Your task to perform on an android device: Open Google Chrome and open the bookmarks view Image 0: 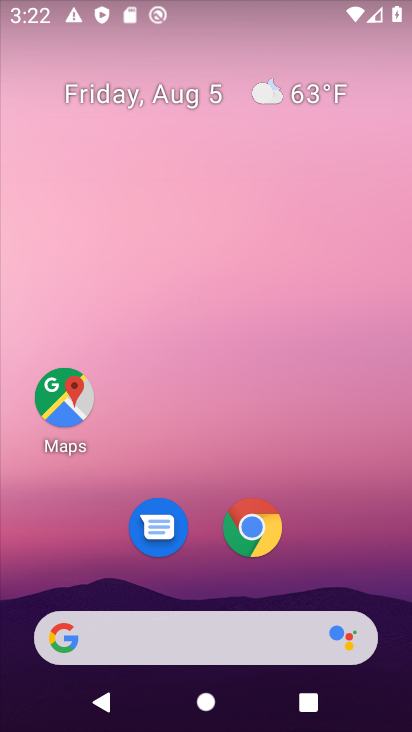
Step 0: click (222, 179)
Your task to perform on an android device: Open Google Chrome and open the bookmarks view Image 1: 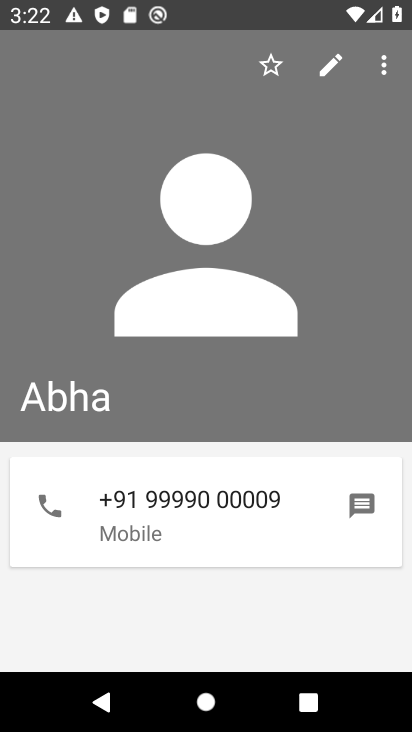
Step 1: press home button
Your task to perform on an android device: Open Google Chrome and open the bookmarks view Image 2: 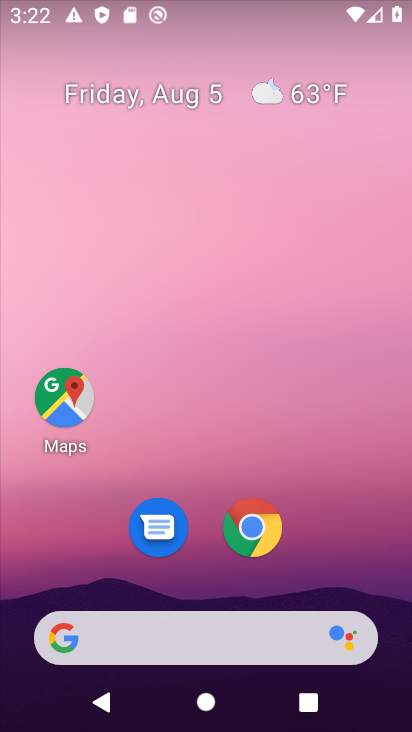
Step 2: click (249, 525)
Your task to perform on an android device: Open Google Chrome and open the bookmarks view Image 3: 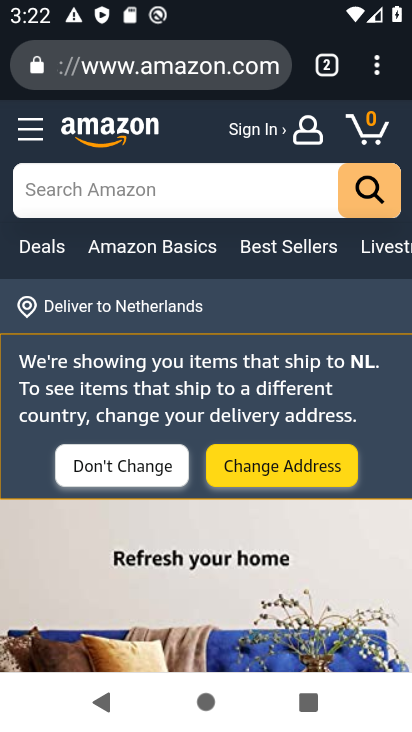
Step 3: click (379, 73)
Your task to perform on an android device: Open Google Chrome and open the bookmarks view Image 4: 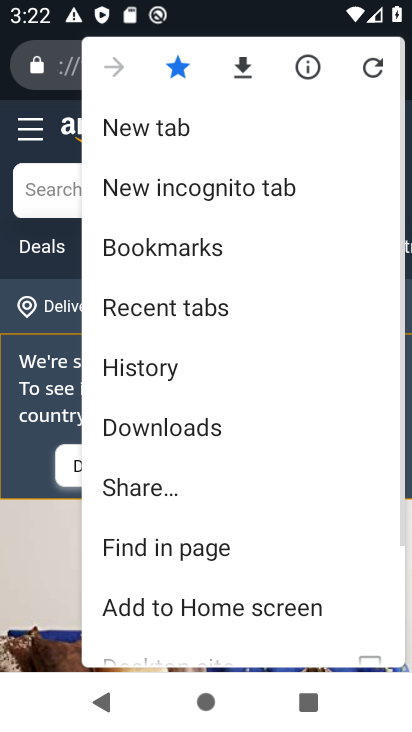
Step 4: click (164, 252)
Your task to perform on an android device: Open Google Chrome and open the bookmarks view Image 5: 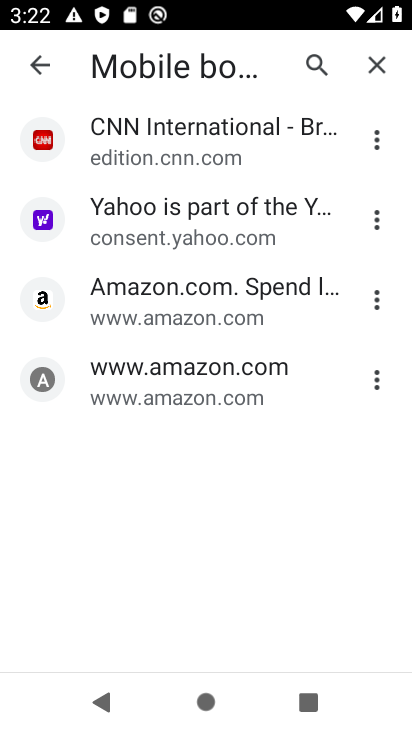
Step 5: task complete